Your task to perform on an android device: Search for vegetarian restaurants on Maps Image 0: 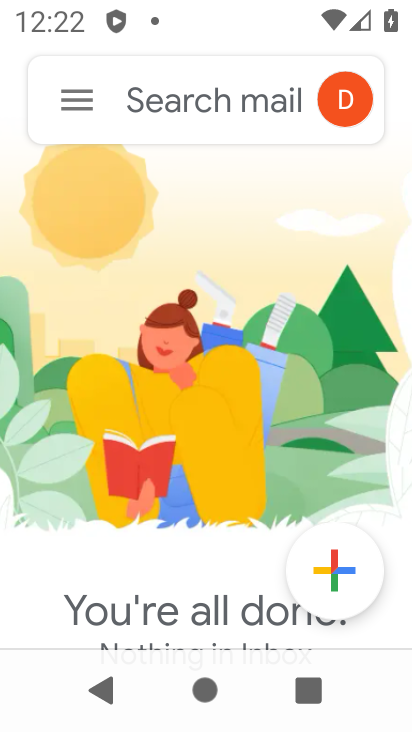
Step 0: press back button
Your task to perform on an android device: Search for vegetarian restaurants on Maps Image 1: 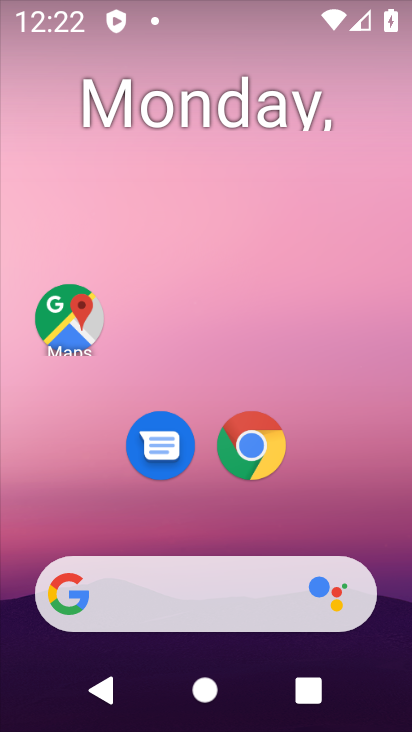
Step 1: click (69, 321)
Your task to perform on an android device: Search for vegetarian restaurants on Maps Image 2: 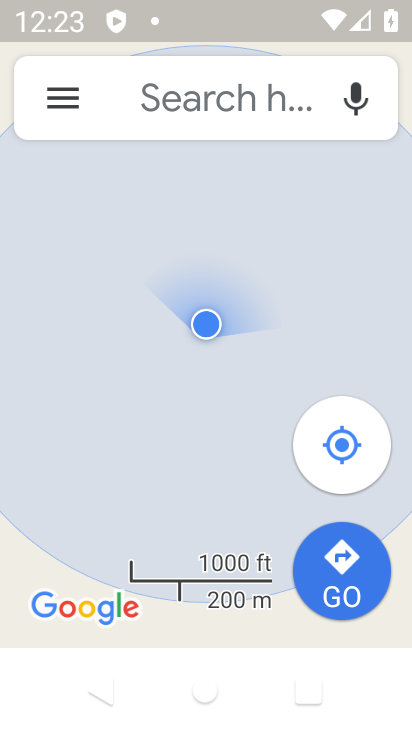
Step 2: click (199, 98)
Your task to perform on an android device: Search for vegetarian restaurants on Maps Image 3: 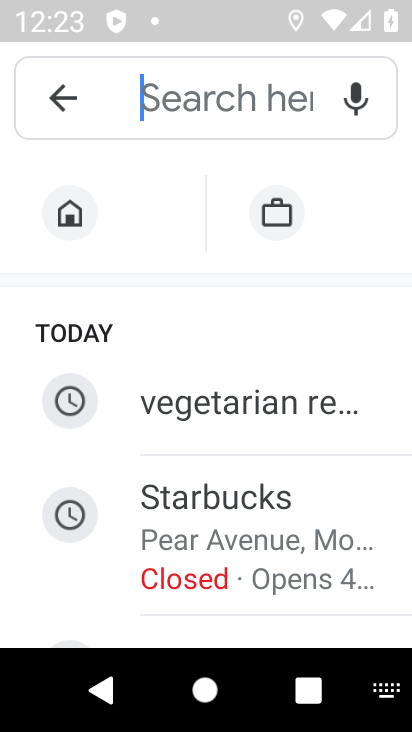
Step 3: type "vegetarian restaurants"
Your task to perform on an android device: Search for vegetarian restaurants on Maps Image 4: 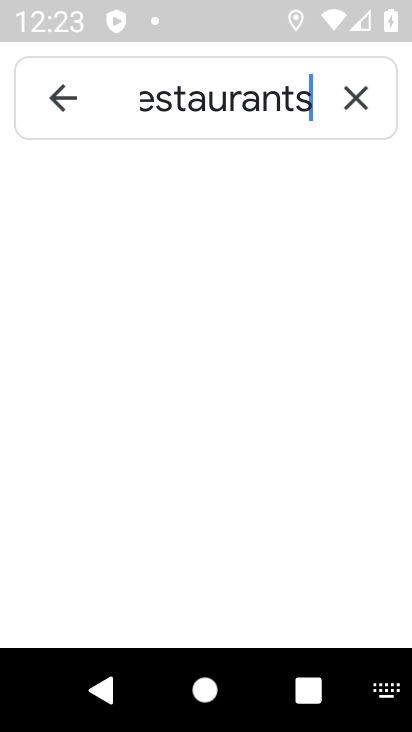
Step 4: type ""
Your task to perform on an android device: Search for vegetarian restaurants on Maps Image 5: 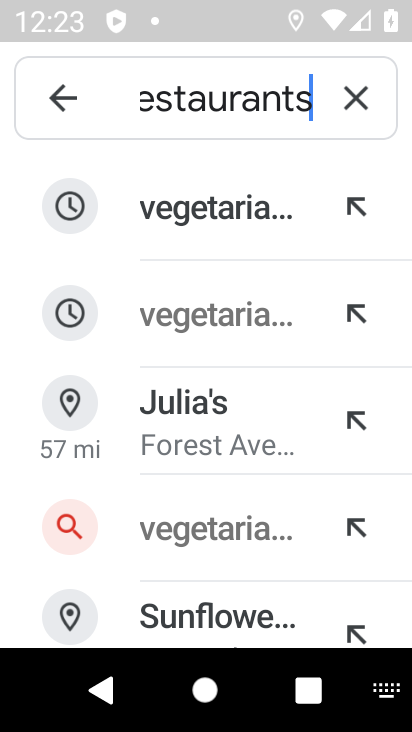
Step 5: click (226, 226)
Your task to perform on an android device: Search for vegetarian restaurants on Maps Image 6: 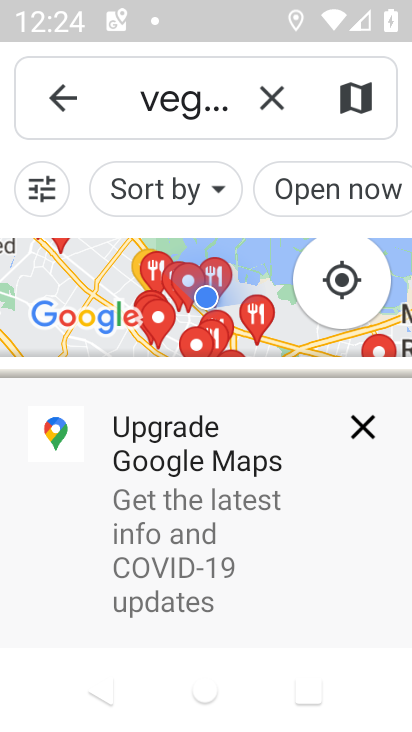
Step 6: click (361, 433)
Your task to perform on an android device: Search for vegetarian restaurants on Maps Image 7: 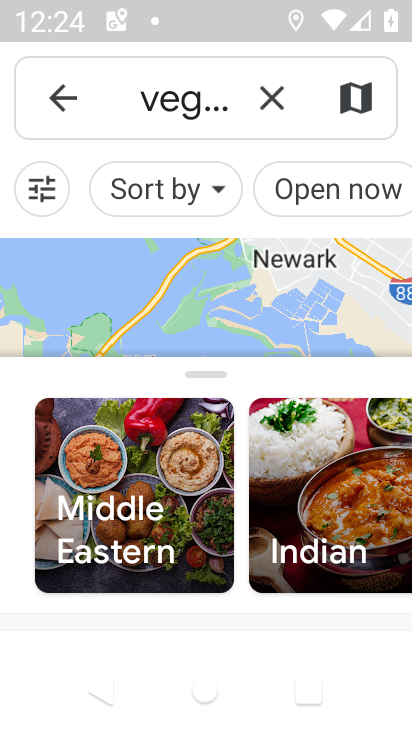
Step 7: task complete